Your task to perform on an android device: Search for Italian restaurants on Maps Image 0: 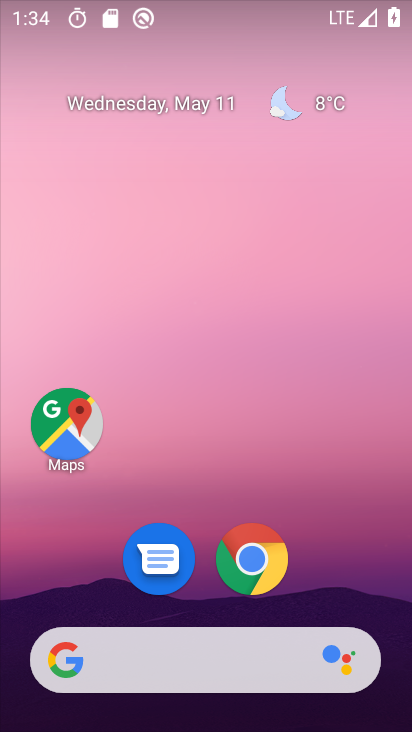
Step 0: click (254, 557)
Your task to perform on an android device: Search for Italian restaurants on Maps Image 1: 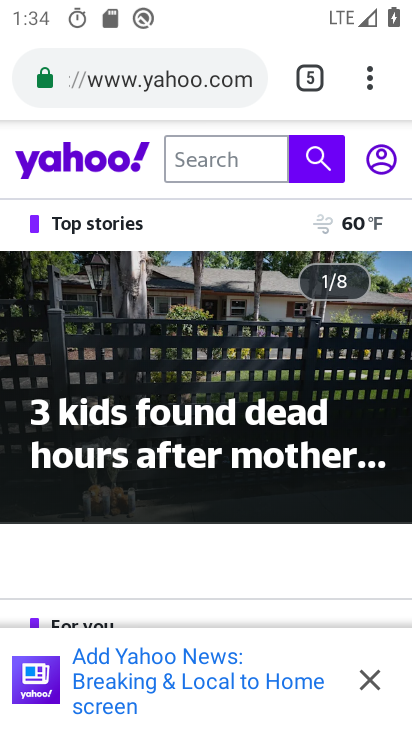
Step 1: press home button
Your task to perform on an android device: Search for Italian restaurants on Maps Image 2: 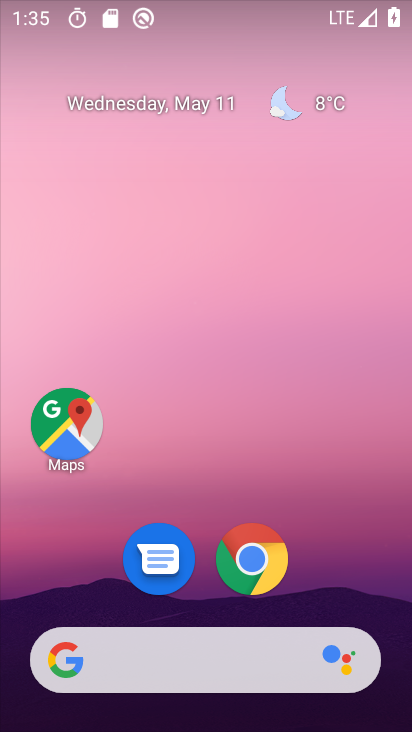
Step 2: drag from (166, 727) to (170, 280)
Your task to perform on an android device: Search for Italian restaurants on Maps Image 3: 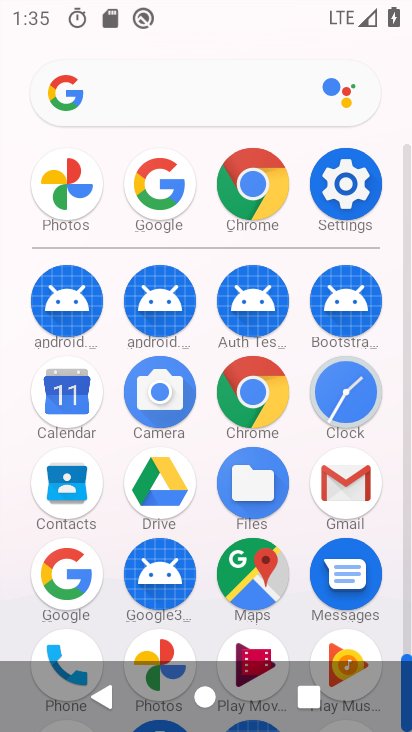
Step 3: drag from (221, 614) to (213, 261)
Your task to perform on an android device: Search for Italian restaurants on Maps Image 4: 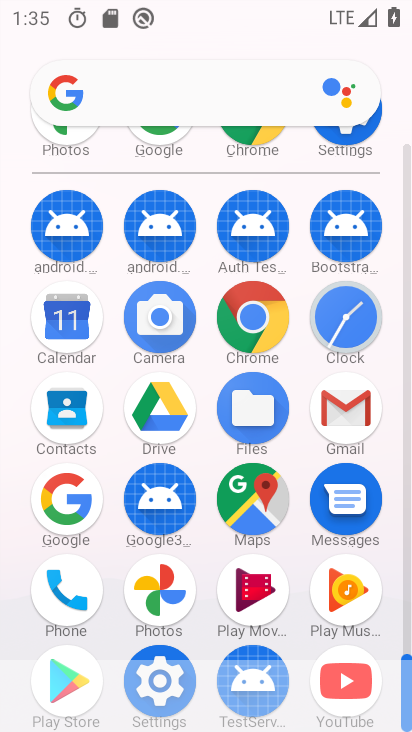
Step 4: click (257, 508)
Your task to perform on an android device: Search for Italian restaurants on Maps Image 5: 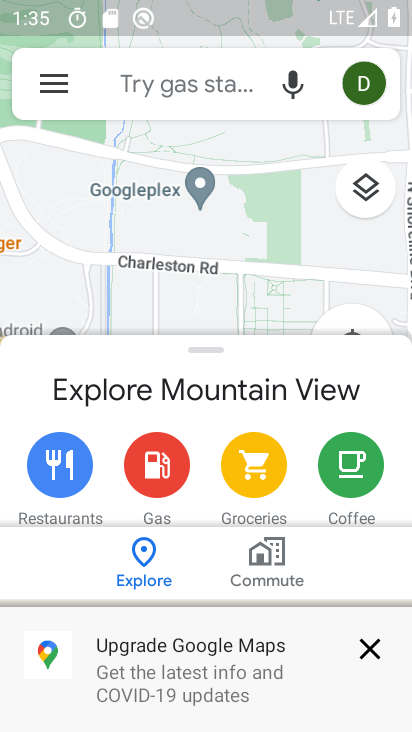
Step 5: click (220, 89)
Your task to perform on an android device: Search for Italian restaurants on Maps Image 6: 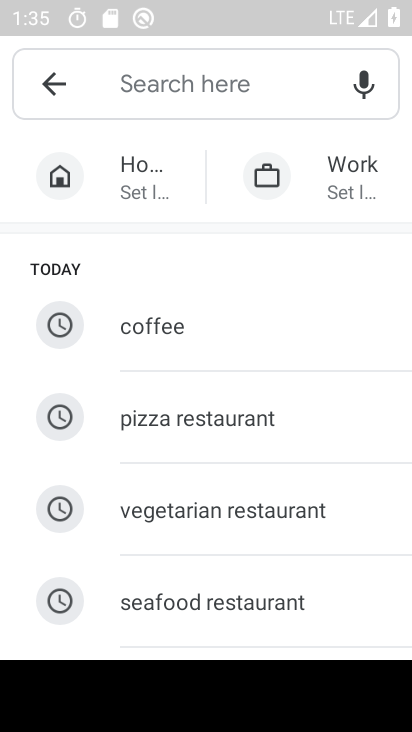
Step 6: type "Italian restaurants"
Your task to perform on an android device: Search for Italian restaurants on Maps Image 7: 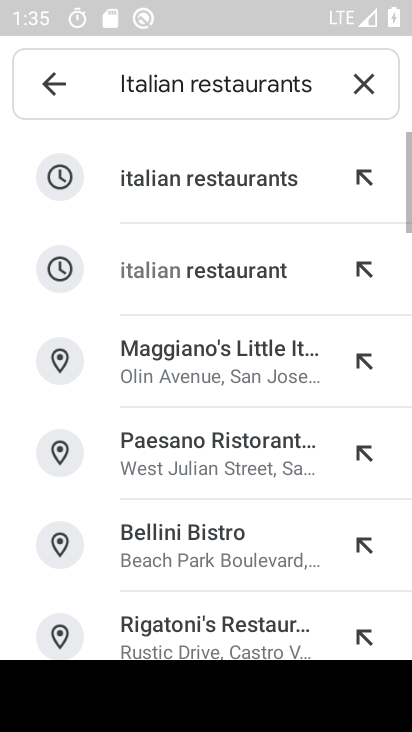
Step 7: click (155, 178)
Your task to perform on an android device: Search for Italian restaurants on Maps Image 8: 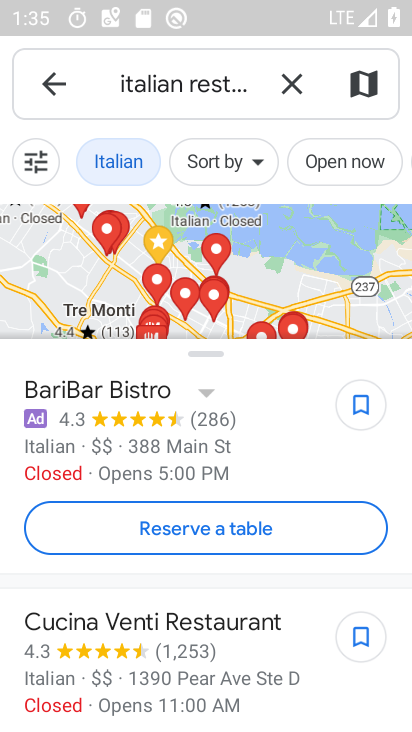
Step 8: task complete